Your task to perform on an android device: find snoozed emails in the gmail app Image 0: 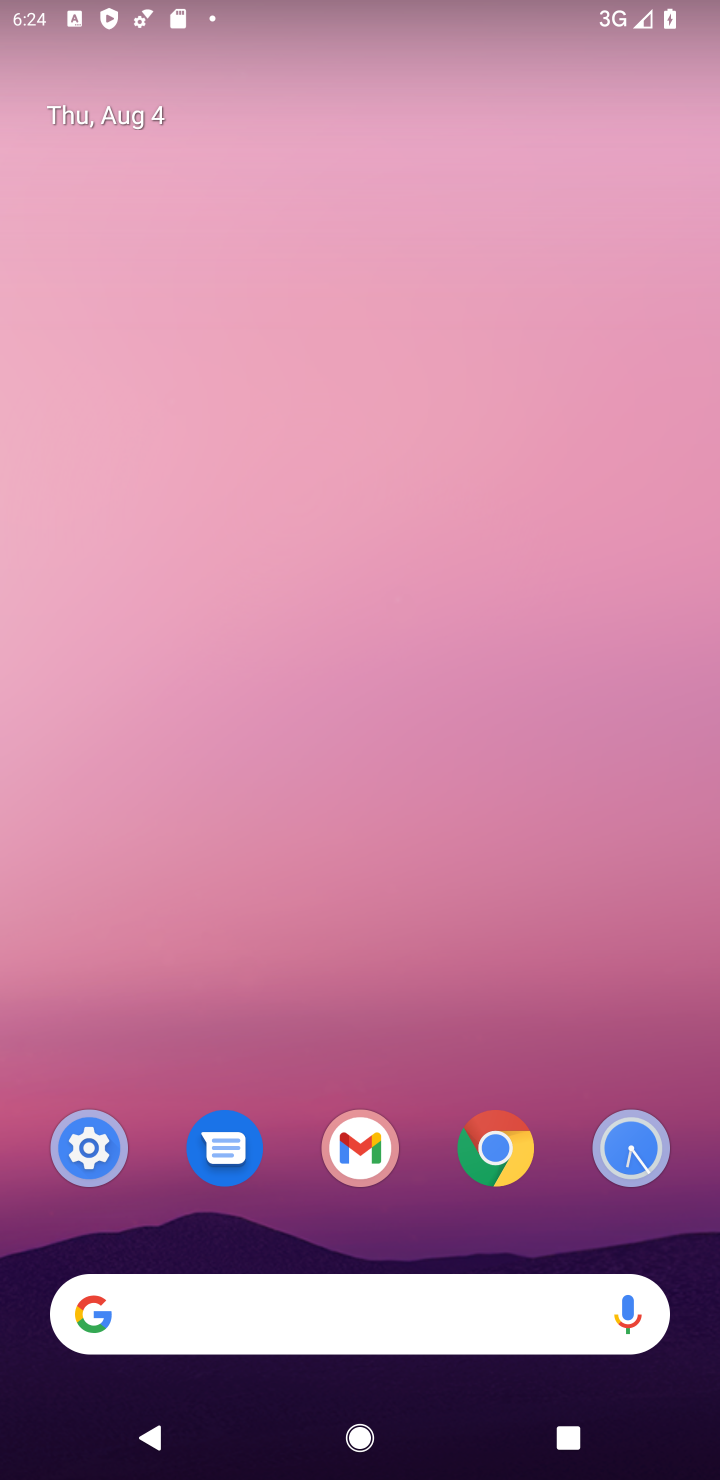
Step 0: click (358, 1142)
Your task to perform on an android device: find snoozed emails in the gmail app Image 1: 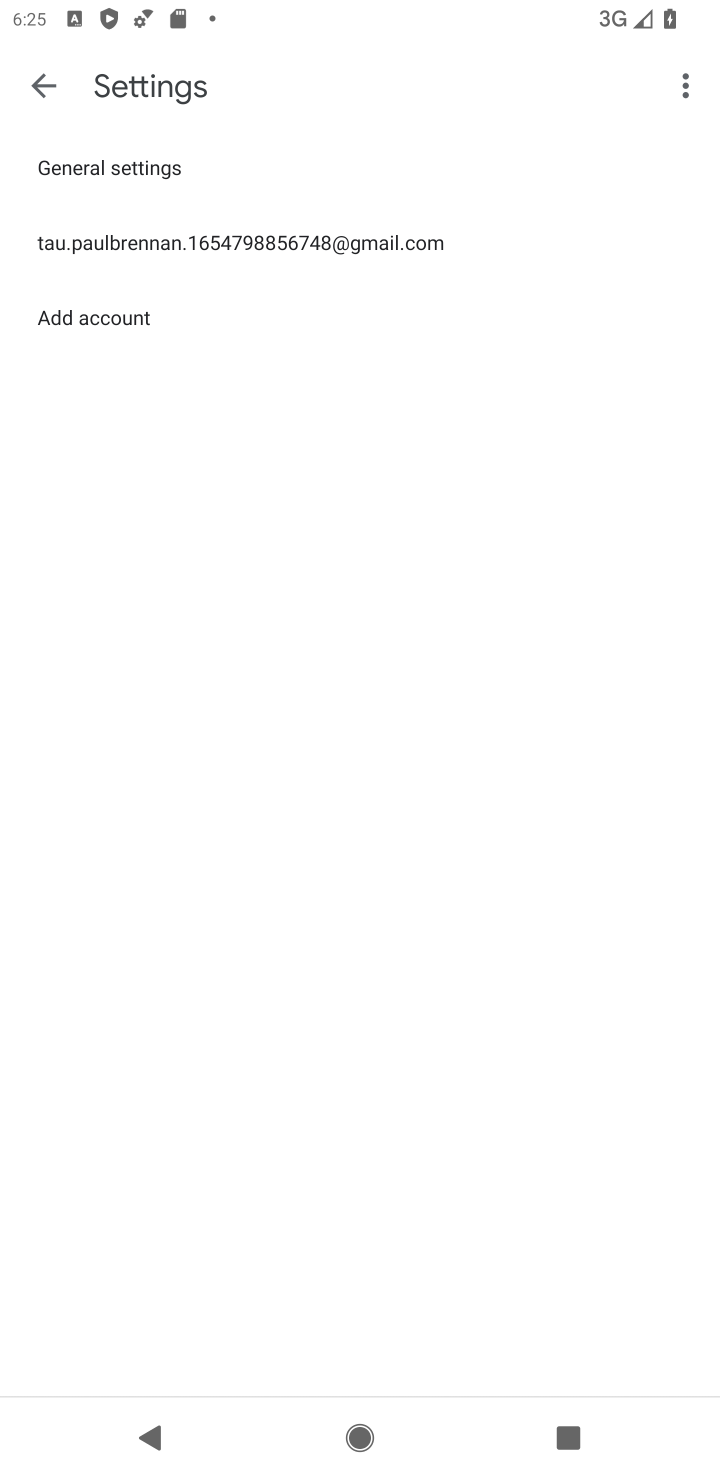
Step 1: press back button
Your task to perform on an android device: find snoozed emails in the gmail app Image 2: 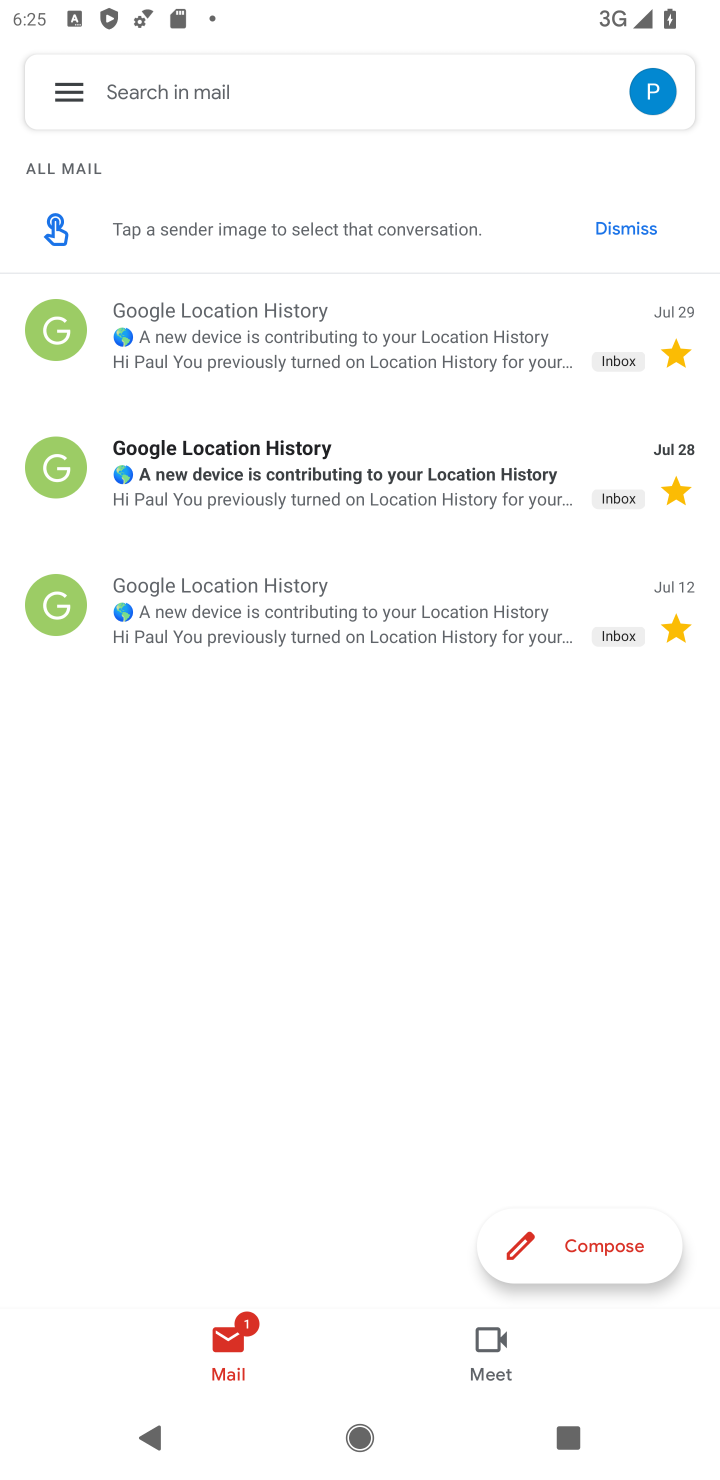
Step 2: click (73, 93)
Your task to perform on an android device: find snoozed emails in the gmail app Image 3: 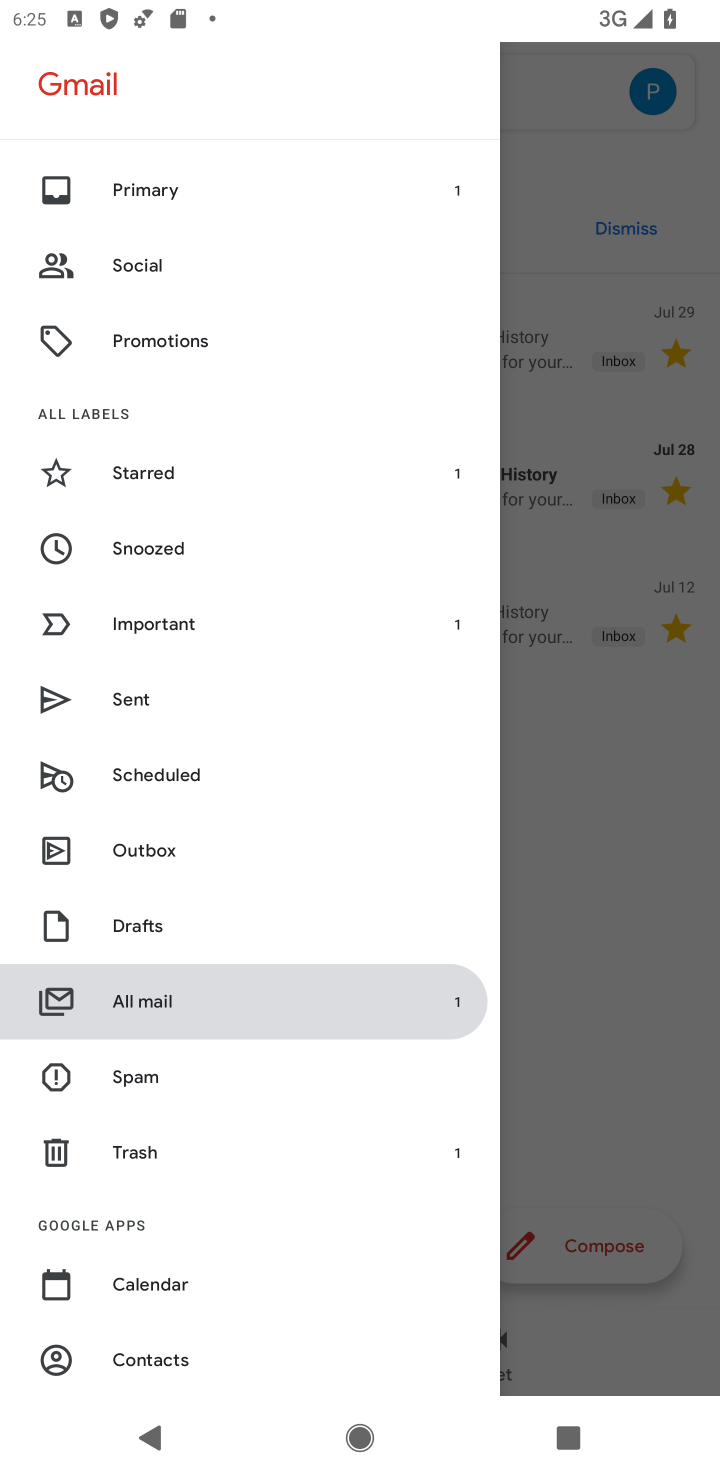
Step 3: click (152, 550)
Your task to perform on an android device: find snoozed emails in the gmail app Image 4: 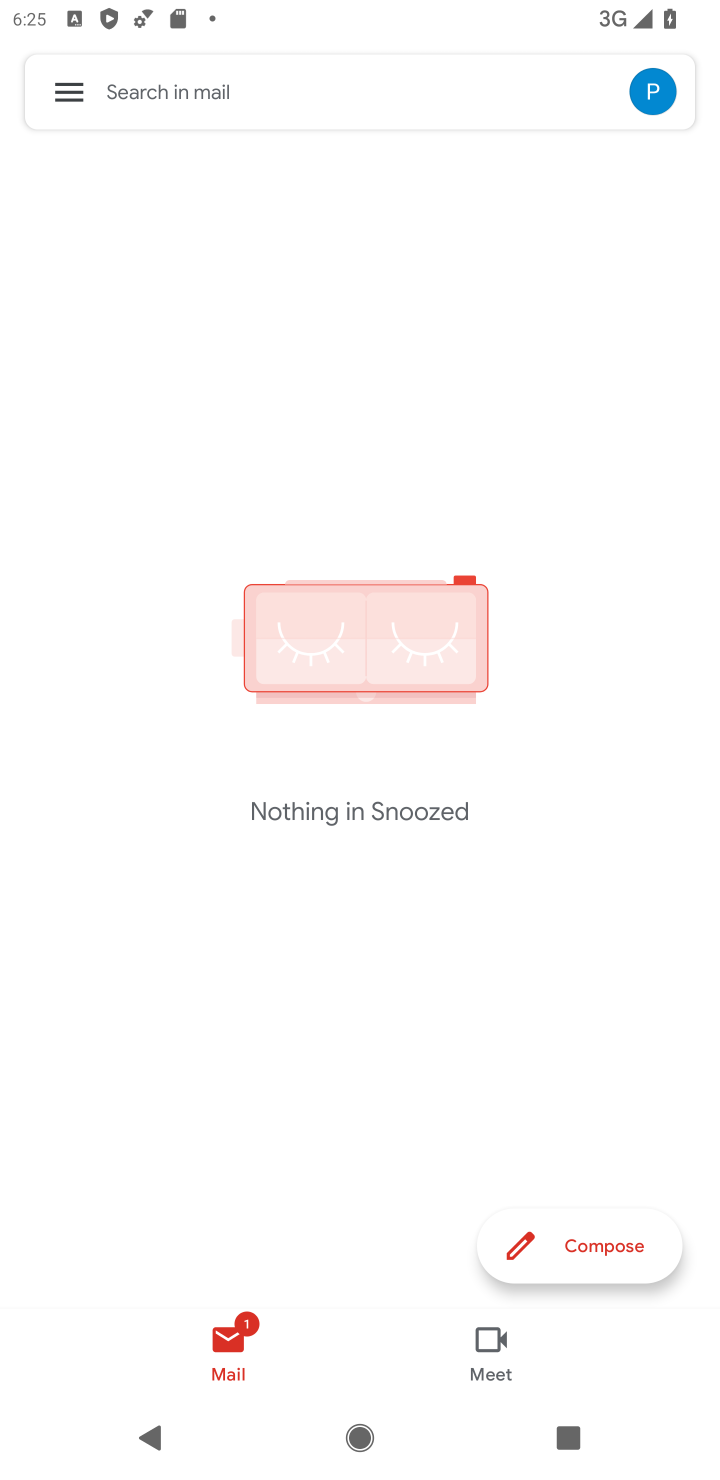
Step 4: task complete